Your task to perform on an android device: check battery use Image 0: 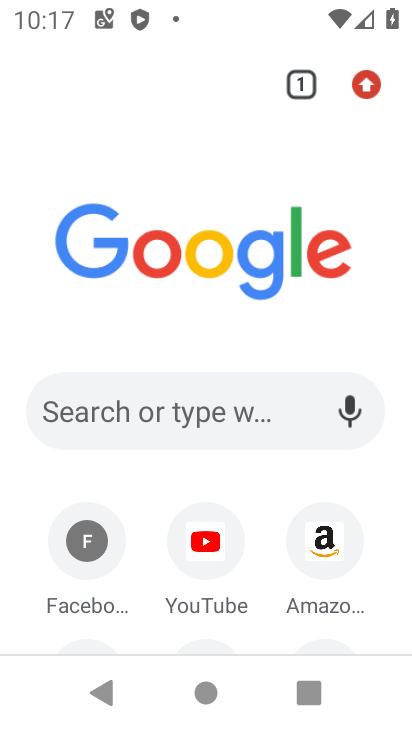
Step 0: press home button
Your task to perform on an android device: check battery use Image 1: 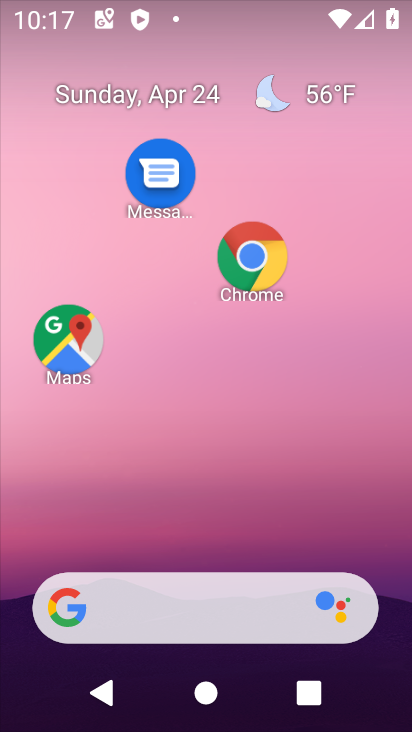
Step 1: drag from (227, 713) to (213, 47)
Your task to perform on an android device: check battery use Image 2: 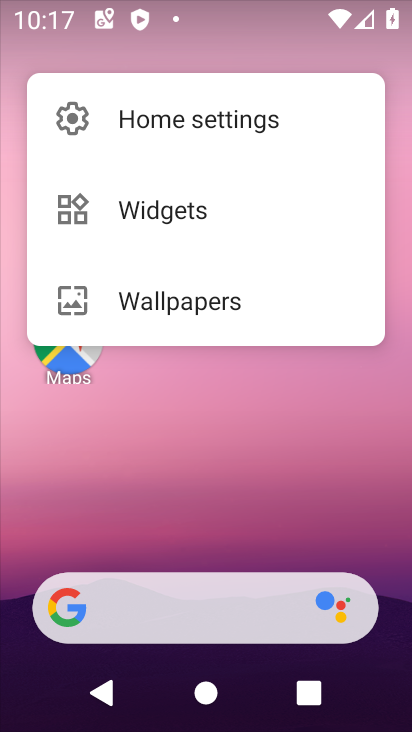
Step 2: click (257, 415)
Your task to perform on an android device: check battery use Image 3: 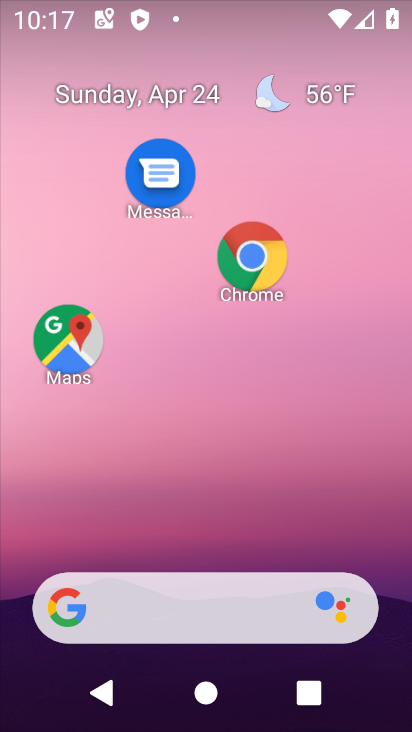
Step 3: drag from (218, 486) to (207, 124)
Your task to perform on an android device: check battery use Image 4: 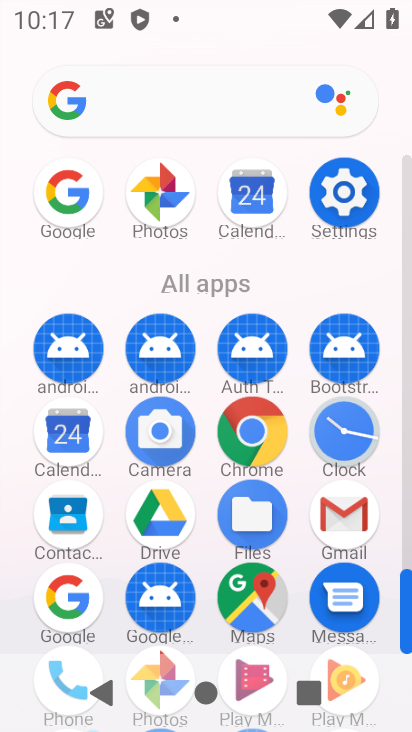
Step 4: click (344, 204)
Your task to perform on an android device: check battery use Image 5: 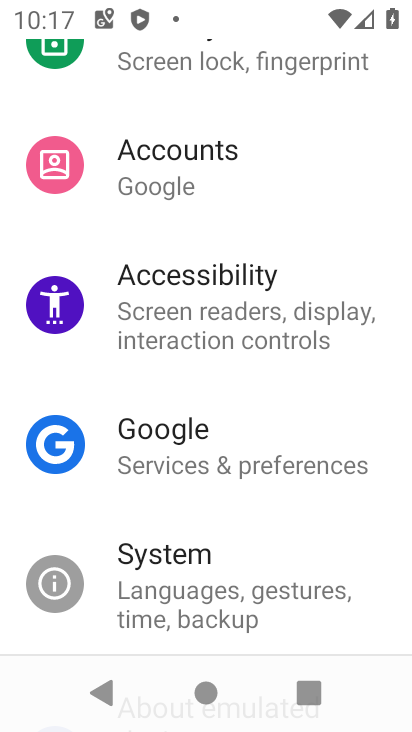
Step 5: drag from (264, 125) to (266, 506)
Your task to perform on an android device: check battery use Image 6: 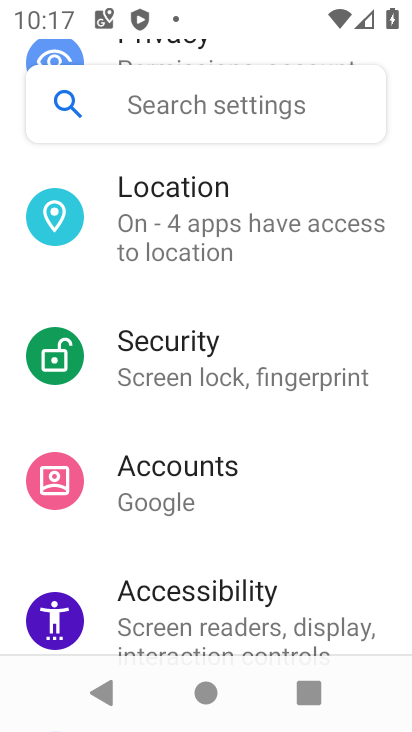
Step 6: drag from (269, 177) to (265, 556)
Your task to perform on an android device: check battery use Image 7: 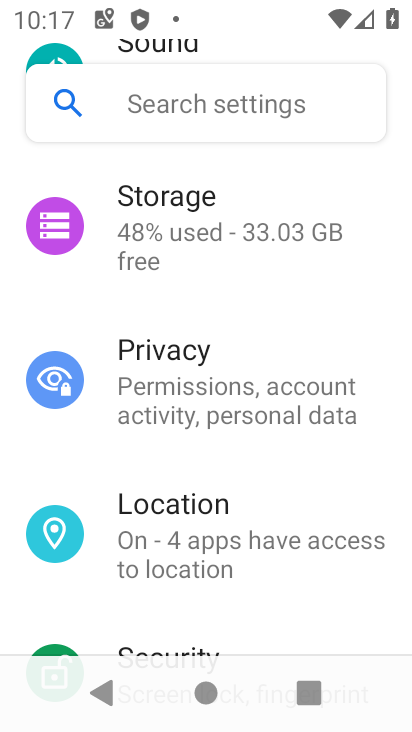
Step 7: drag from (231, 177) to (251, 504)
Your task to perform on an android device: check battery use Image 8: 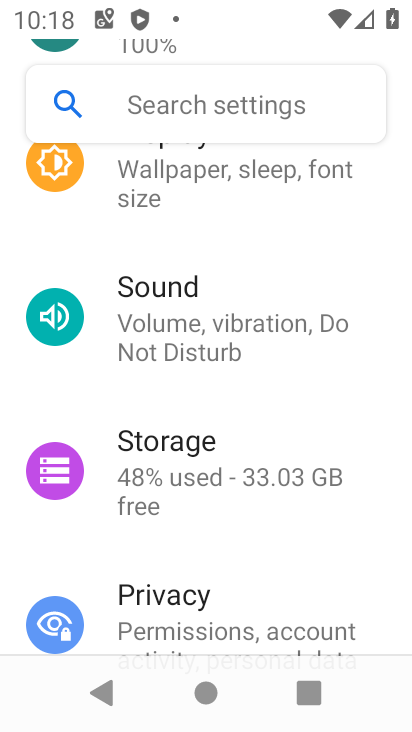
Step 8: drag from (206, 222) to (224, 474)
Your task to perform on an android device: check battery use Image 9: 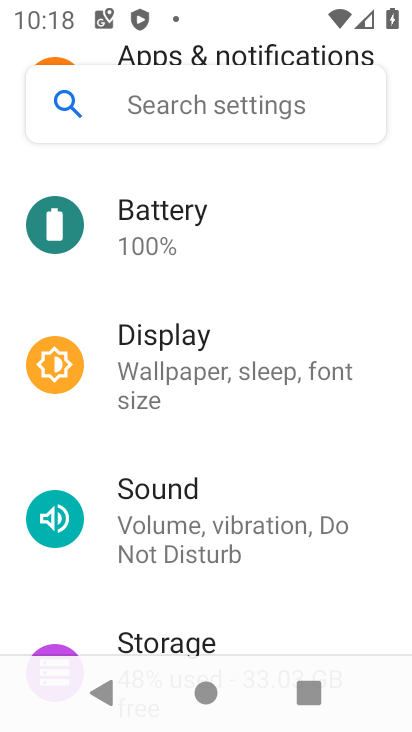
Step 9: click (154, 228)
Your task to perform on an android device: check battery use Image 10: 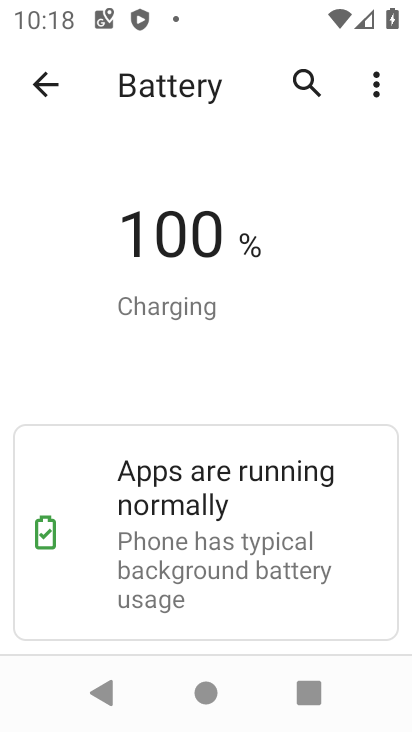
Step 10: drag from (376, 86) to (297, 111)
Your task to perform on an android device: check battery use Image 11: 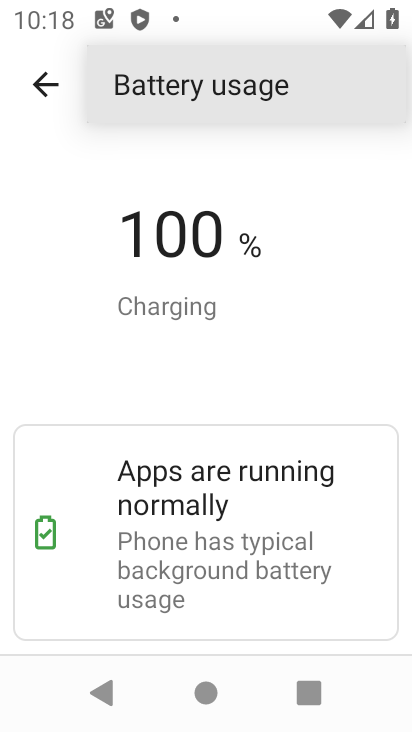
Step 11: click (241, 81)
Your task to perform on an android device: check battery use Image 12: 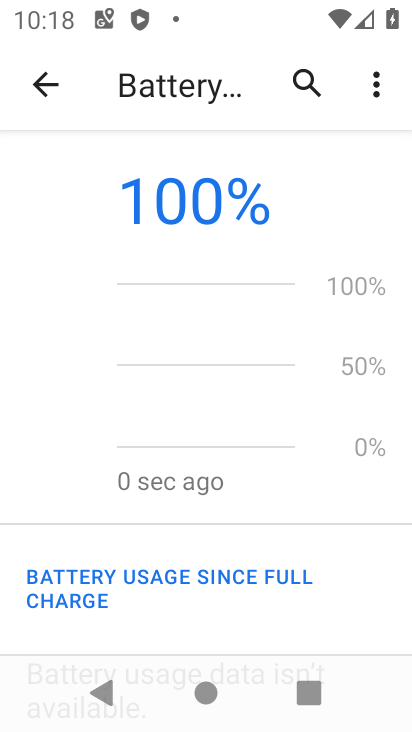
Step 12: task complete